Your task to perform on an android device: Open Yahoo.com Image 0: 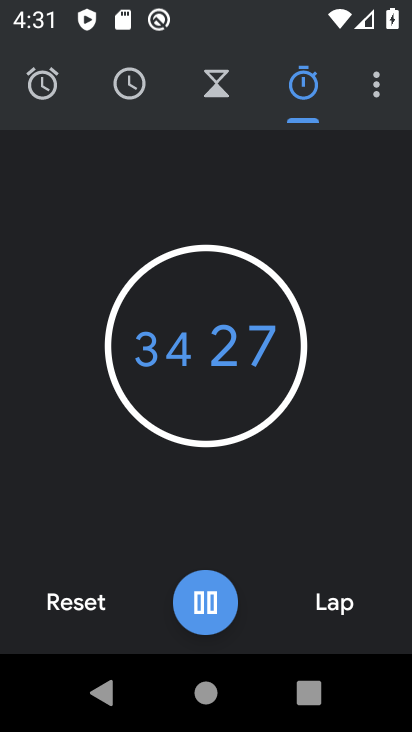
Step 0: press home button
Your task to perform on an android device: Open Yahoo.com Image 1: 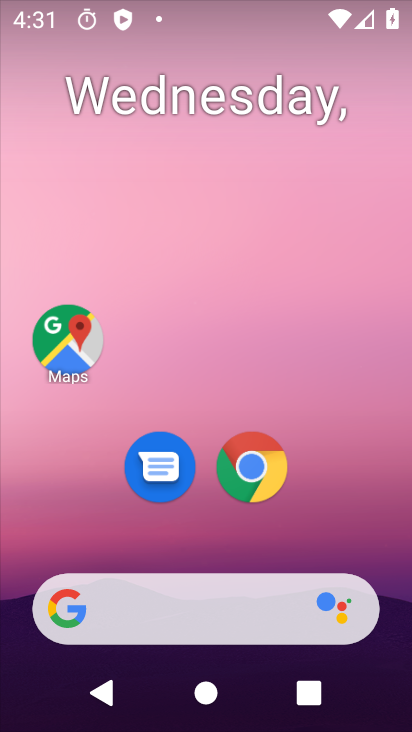
Step 1: click (255, 457)
Your task to perform on an android device: Open Yahoo.com Image 2: 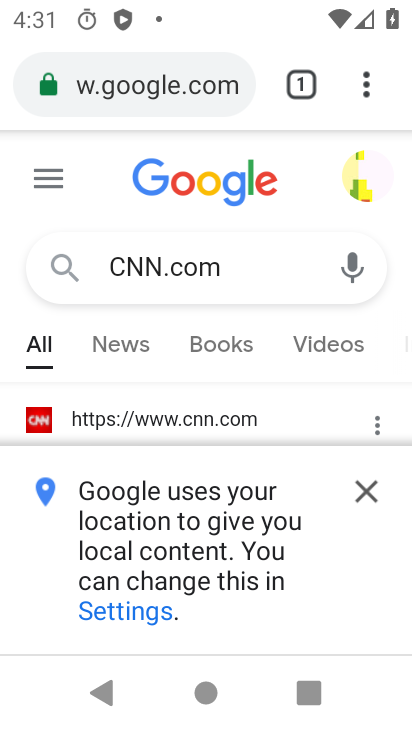
Step 2: click (243, 88)
Your task to perform on an android device: Open Yahoo.com Image 3: 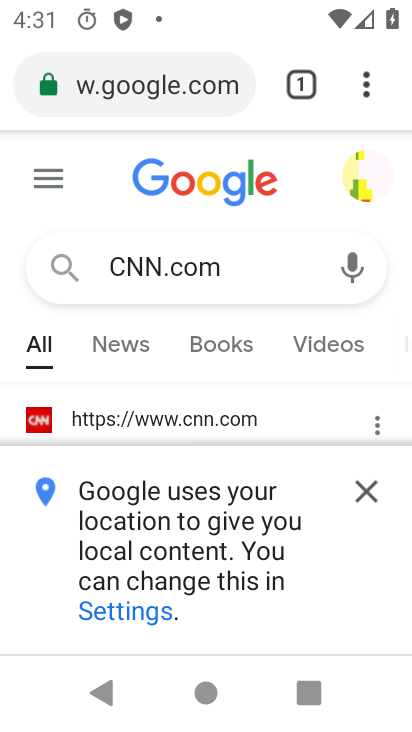
Step 3: click (235, 84)
Your task to perform on an android device: Open Yahoo.com Image 4: 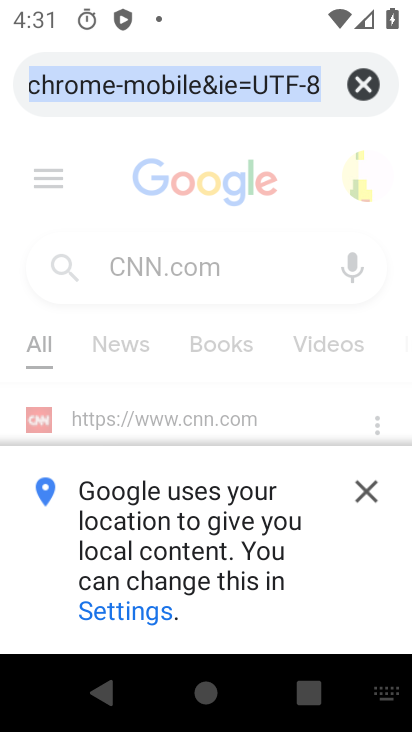
Step 4: click (370, 85)
Your task to perform on an android device: Open Yahoo.com Image 5: 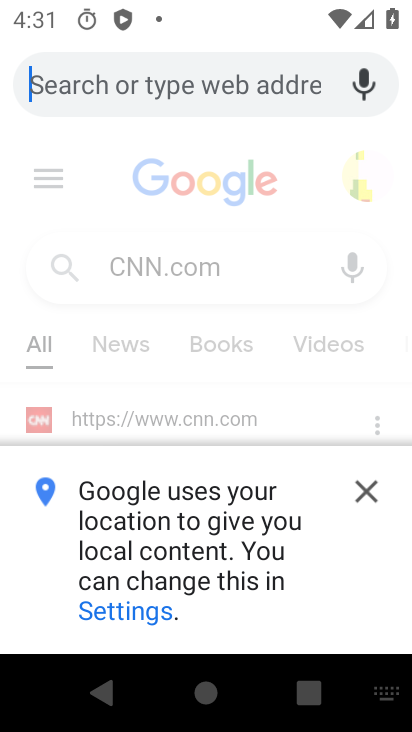
Step 5: type "Yahoo.com"
Your task to perform on an android device: Open Yahoo.com Image 6: 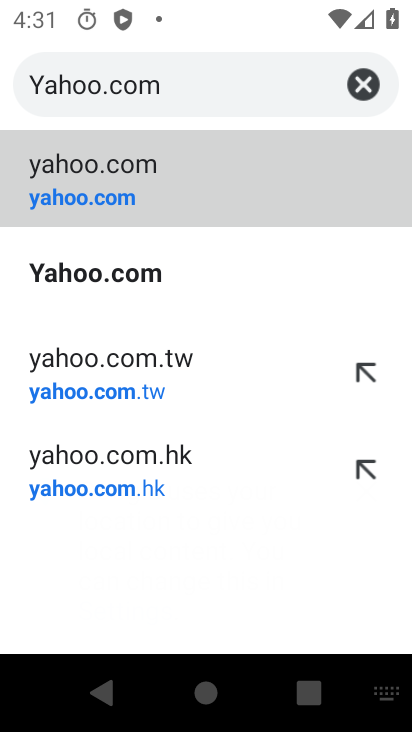
Step 6: click (95, 274)
Your task to perform on an android device: Open Yahoo.com Image 7: 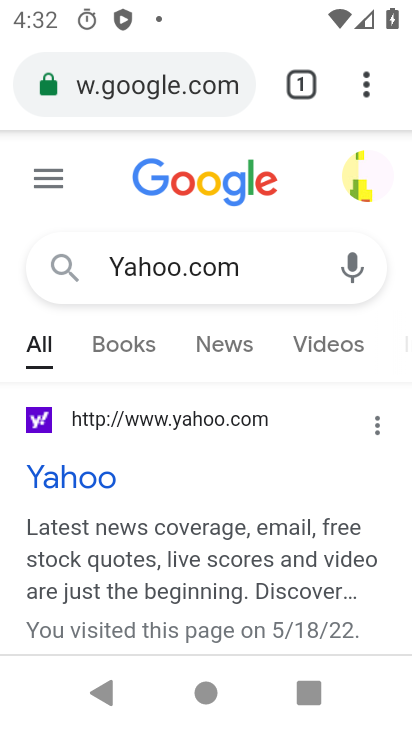
Step 7: task complete